Your task to perform on an android device: add a contact Image 0: 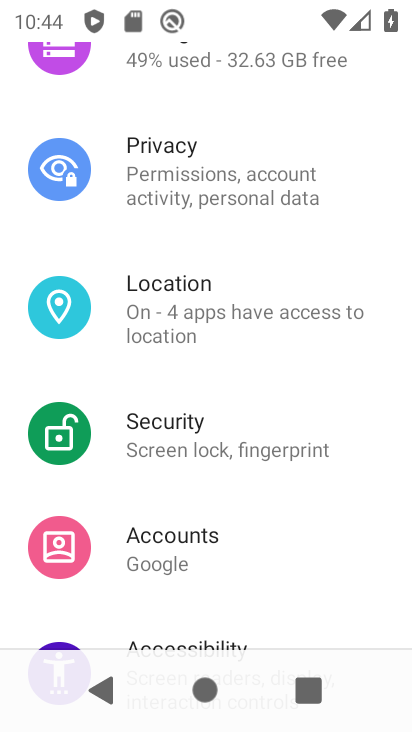
Step 0: press home button
Your task to perform on an android device: add a contact Image 1: 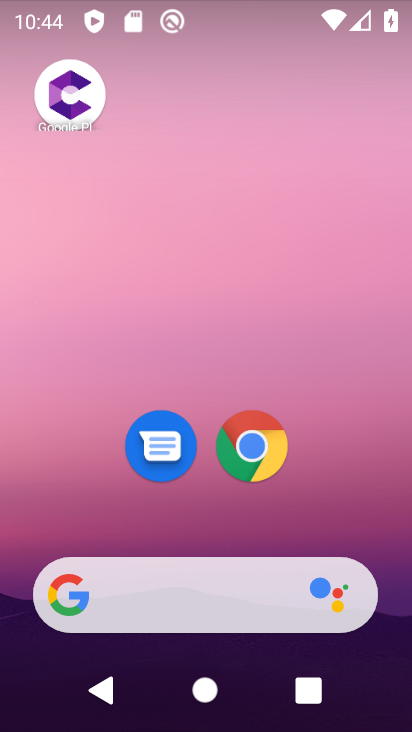
Step 1: drag from (371, 537) to (380, 167)
Your task to perform on an android device: add a contact Image 2: 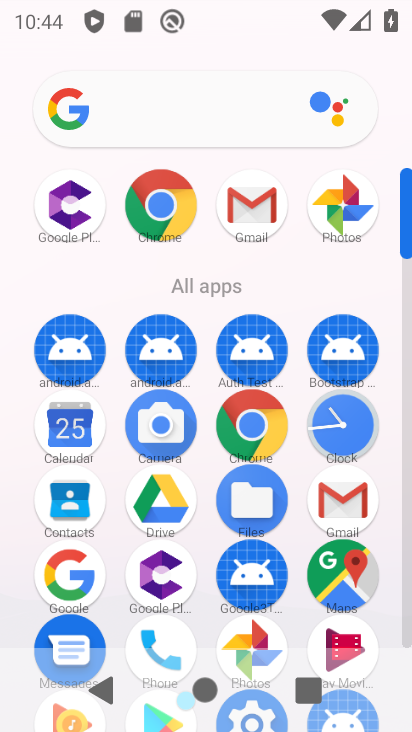
Step 2: click (87, 517)
Your task to perform on an android device: add a contact Image 3: 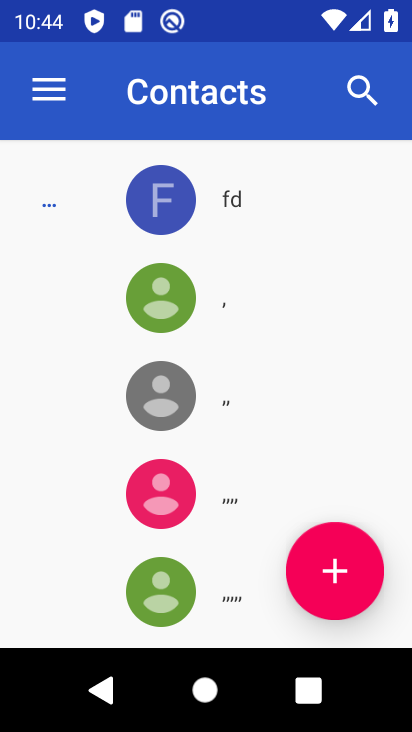
Step 3: click (333, 577)
Your task to perform on an android device: add a contact Image 4: 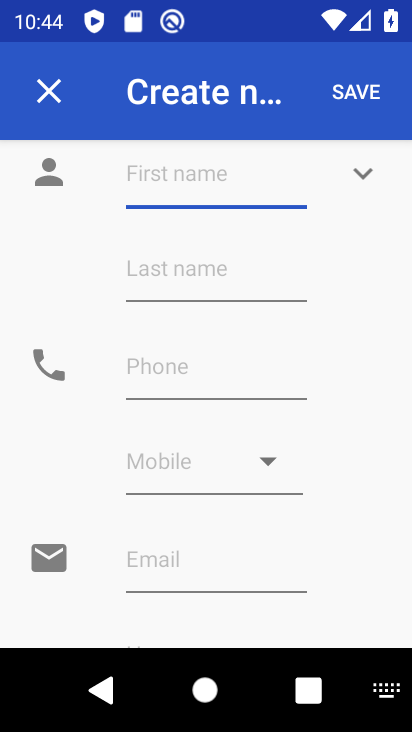
Step 4: type "kajal"
Your task to perform on an android device: add a contact Image 5: 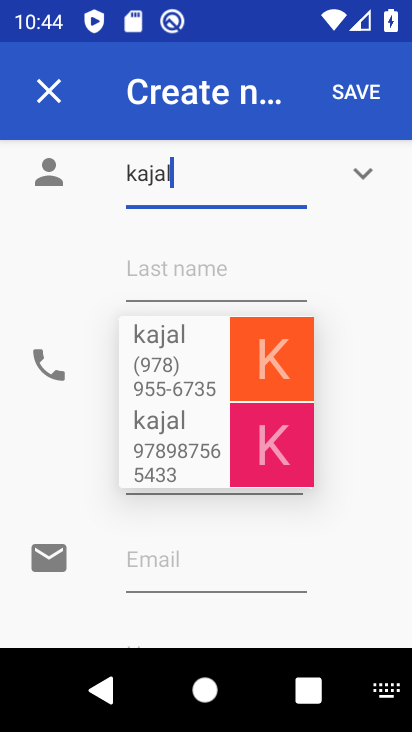
Step 5: click (375, 327)
Your task to perform on an android device: add a contact Image 6: 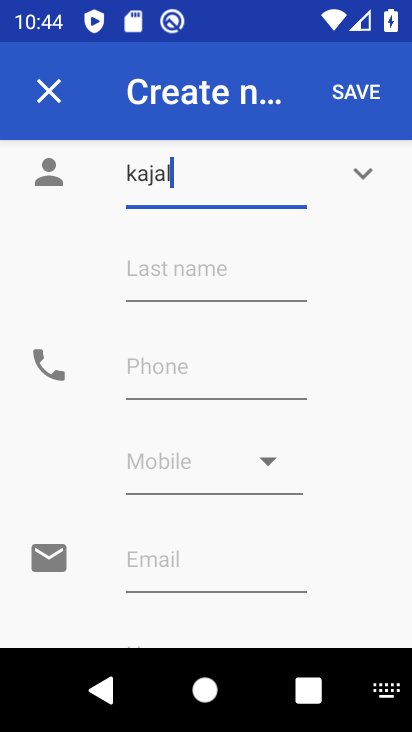
Step 6: click (252, 379)
Your task to perform on an android device: add a contact Image 7: 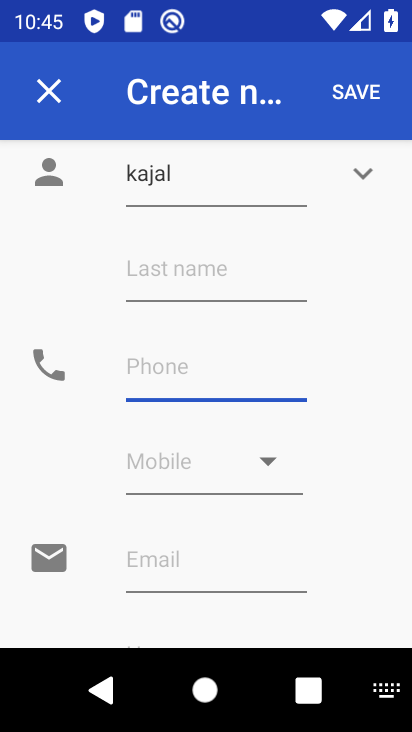
Step 7: type "123456789"
Your task to perform on an android device: add a contact Image 8: 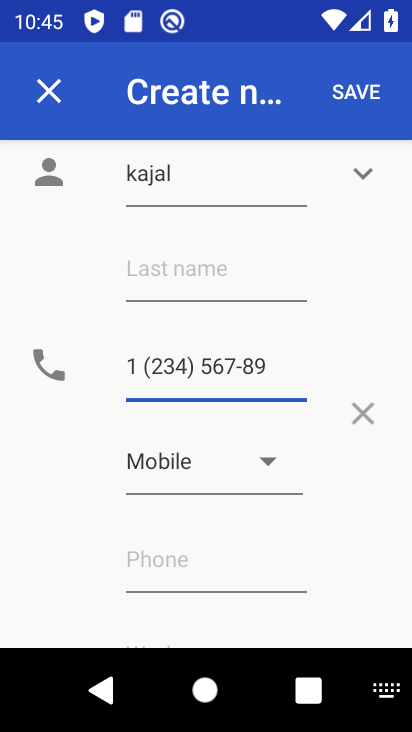
Step 8: click (367, 98)
Your task to perform on an android device: add a contact Image 9: 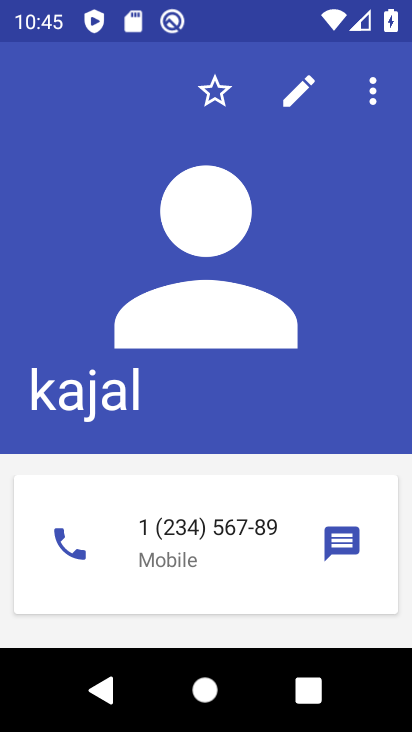
Step 9: task complete